Your task to perform on an android device: Is it going to rain tomorrow? Image 0: 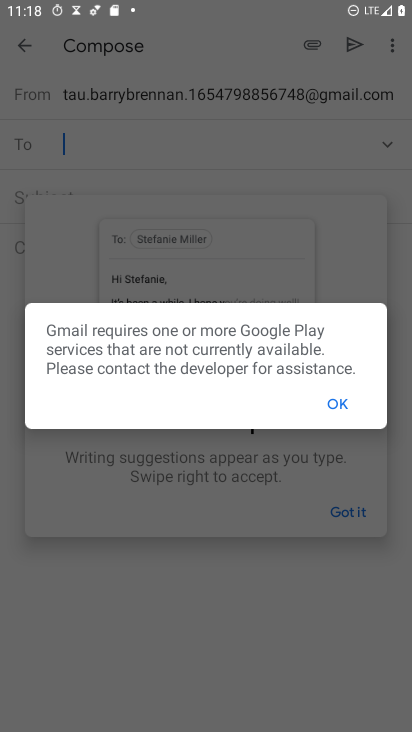
Step 0: press home button
Your task to perform on an android device: Is it going to rain tomorrow? Image 1: 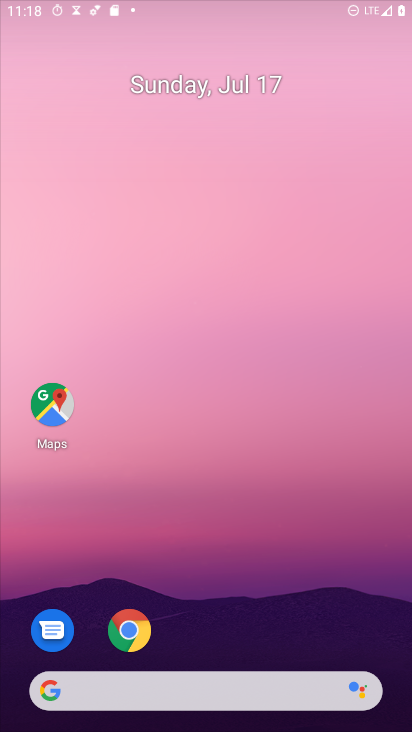
Step 1: drag from (223, 697) to (258, 41)
Your task to perform on an android device: Is it going to rain tomorrow? Image 2: 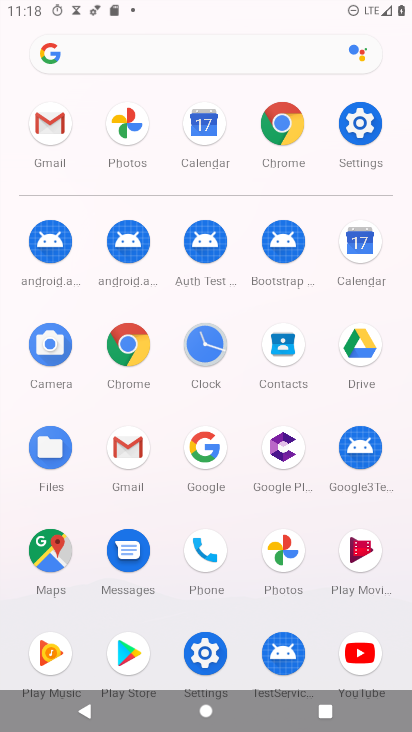
Step 2: click (125, 342)
Your task to perform on an android device: Is it going to rain tomorrow? Image 3: 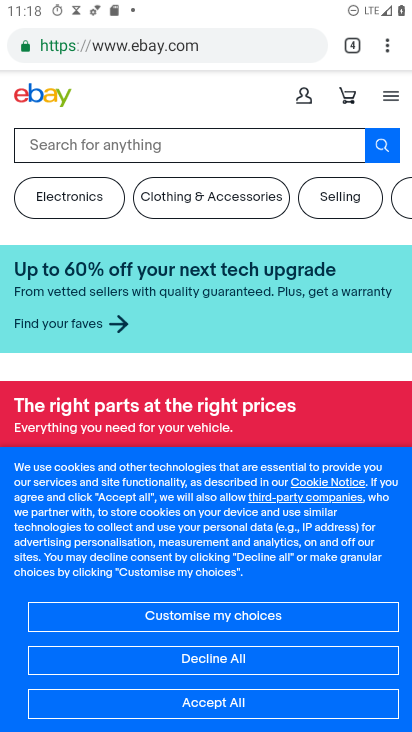
Step 3: click (222, 43)
Your task to perform on an android device: Is it going to rain tomorrow? Image 4: 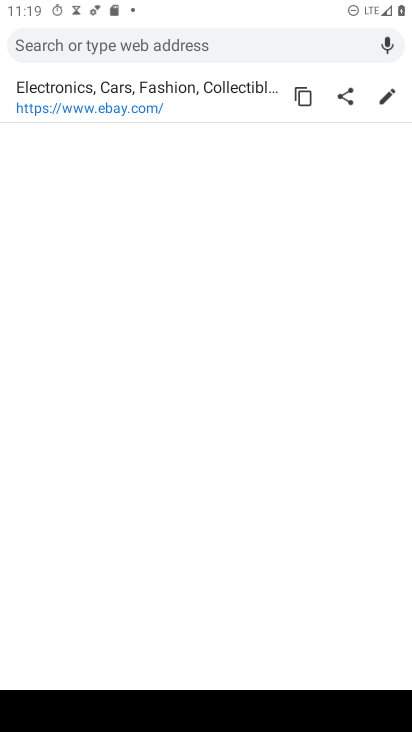
Step 4: type "is it going to rain tomorrow"
Your task to perform on an android device: Is it going to rain tomorrow? Image 5: 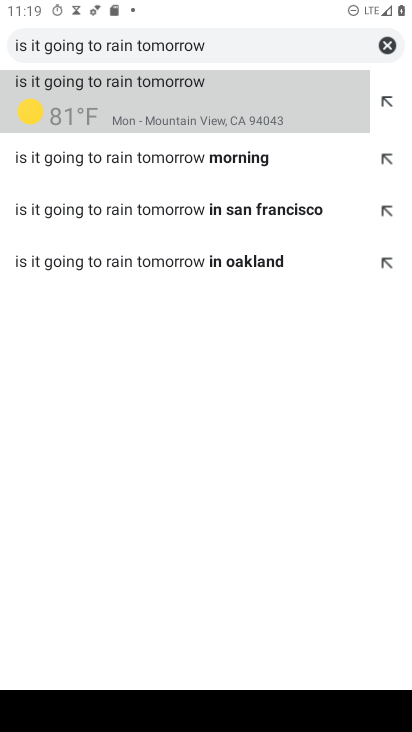
Step 5: click (179, 92)
Your task to perform on an android device: Is it going to rain tomorrow? Image 6: 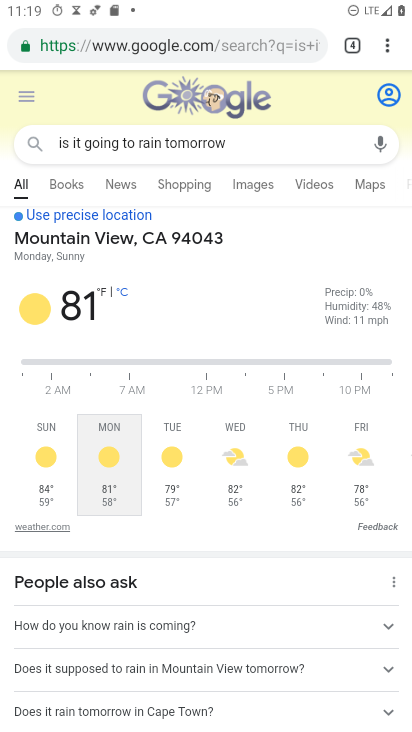
Step 6: task complete